Your task to perform on an android device: Open the phone app and click the voicemail tab. Image 0: 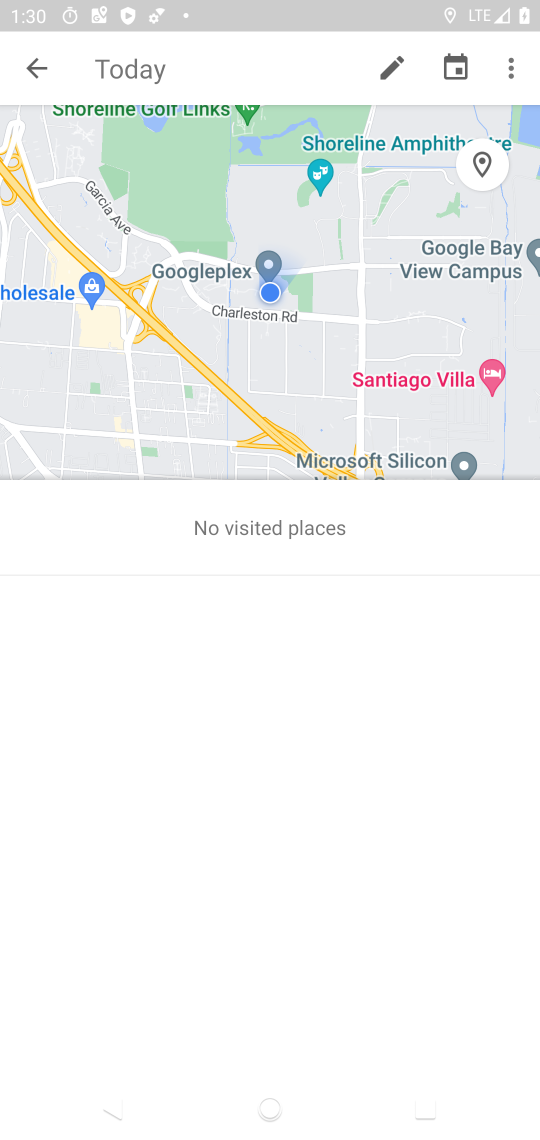
Step 0: press home button
Your task to perform on an android device: Open the phone app and click the voicemail tab. Image 1: 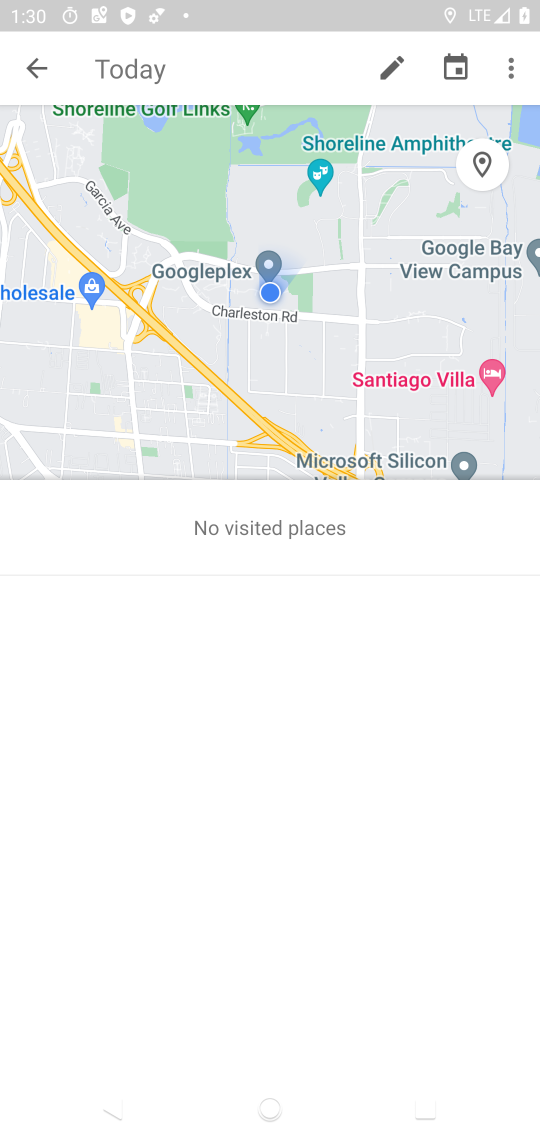
Step 1: press home button
Your task to perform on an android device: Open the phone app and click the voicemail tab. Image 2: 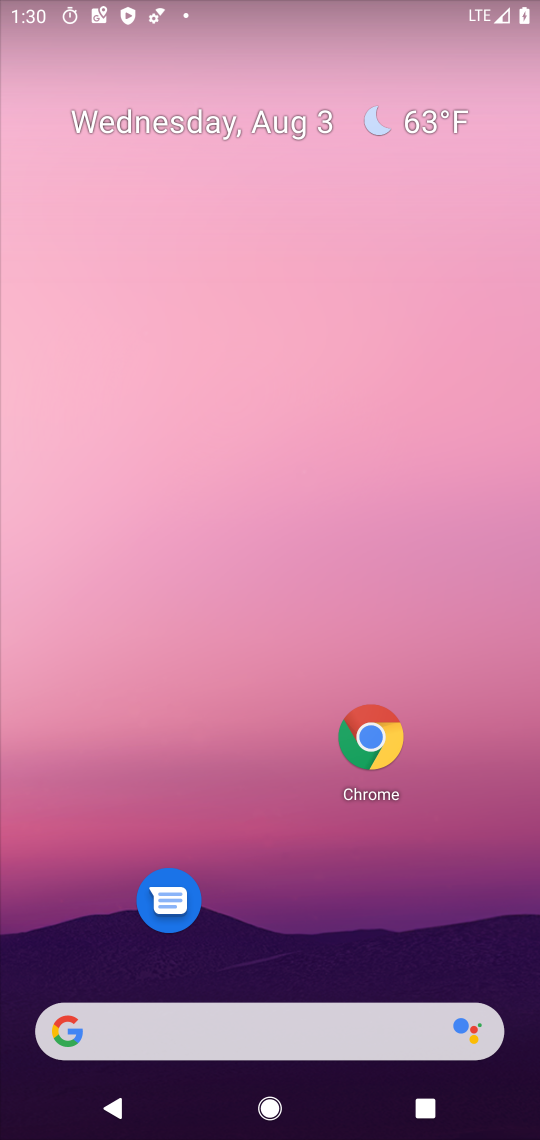
Step 2: drag from (252, 873) to (298, 172)
Your task to perform on an android device: Open the phone app and click the voicemail tab. Image 3: 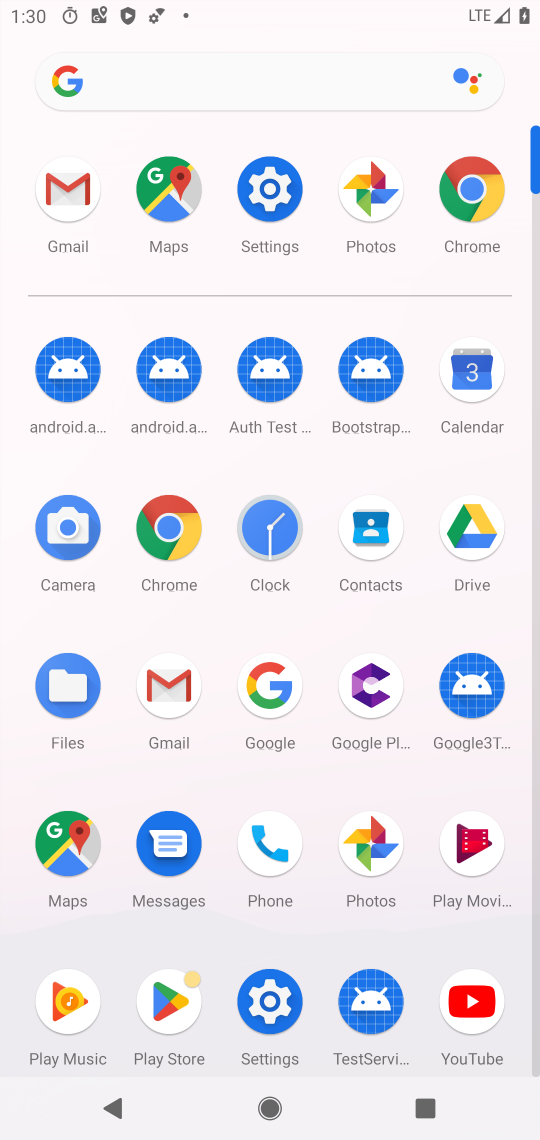
Step 3: click (268, 830)
Your task to perform on an android device: Open the phone app and click the voicemail tab. Image 4: 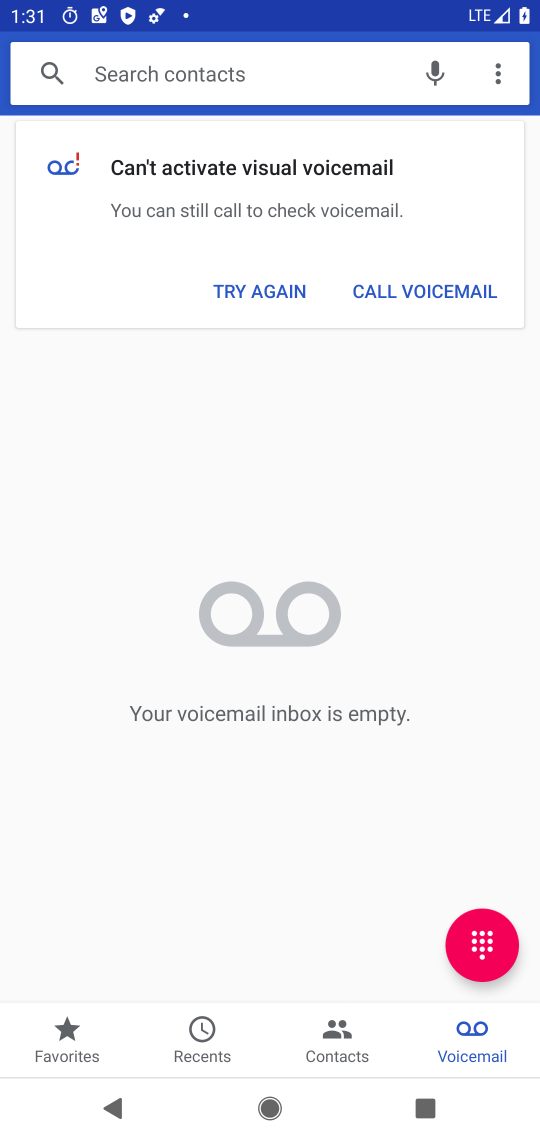
Step 4: click (461, 1031)
Your task to perform on an android device: Open the phone app and click the voicemail tab. Image 5: 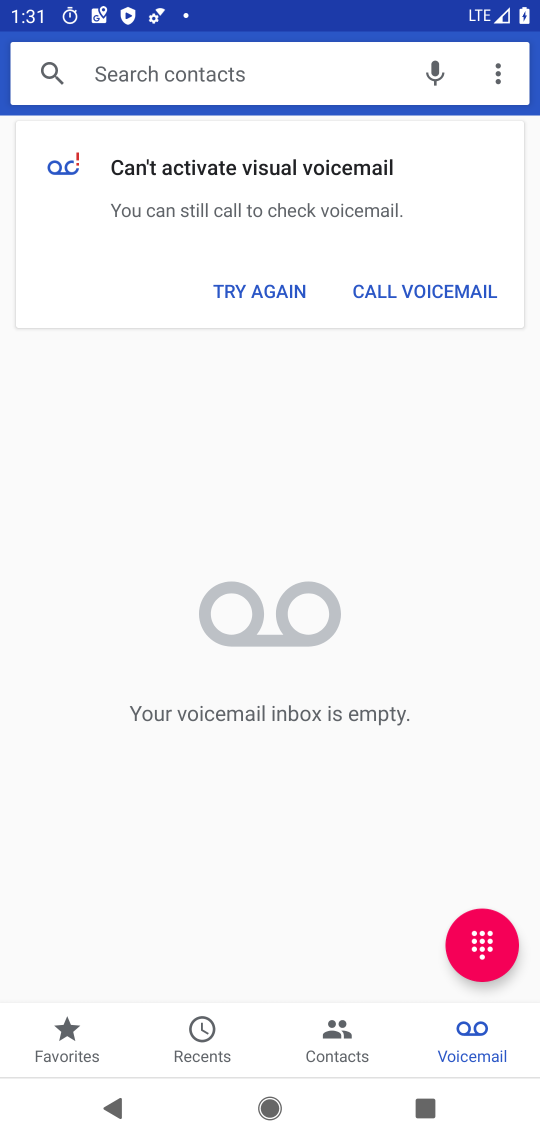
Step 5: task complete